Your task to perform on an android device: change the clock display to digital Image 0: 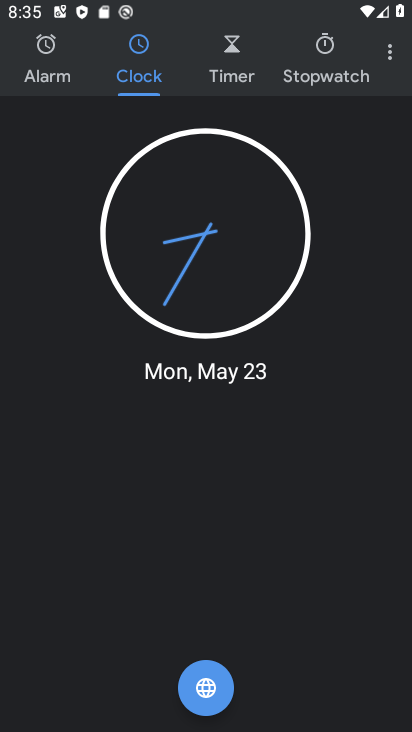
Step 0: press home button
Your task to perform on an android device: change the clock display to digital Image 1: 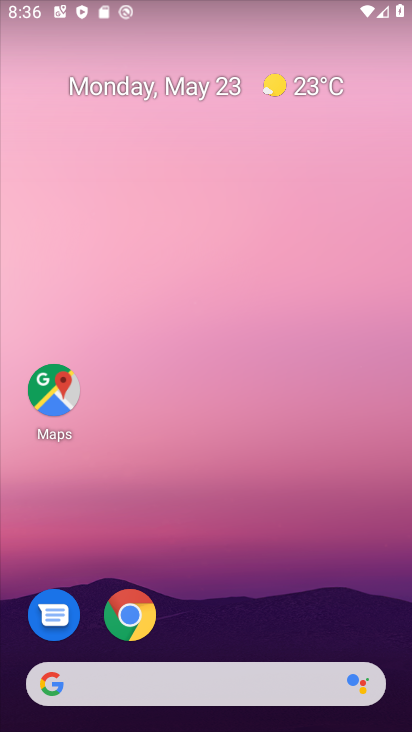
Step 1: drag from (244, 586) to (210, 198)
Your task to perform on an android device: change the clock display to digital Image 2: 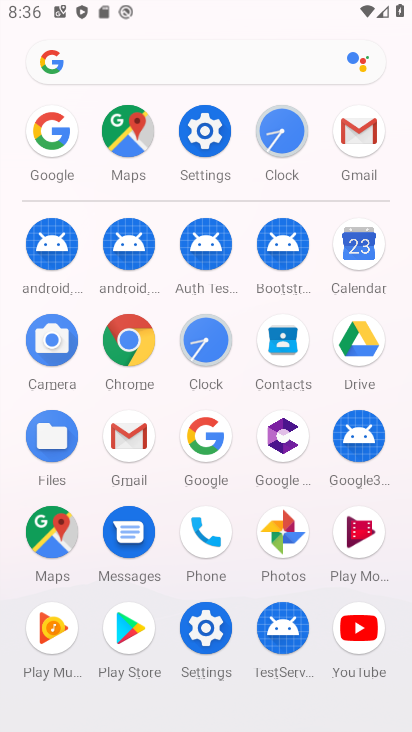
Step 2: click (207, 335)
Your task to perform on an android device: change the clock display to digital Image 3: 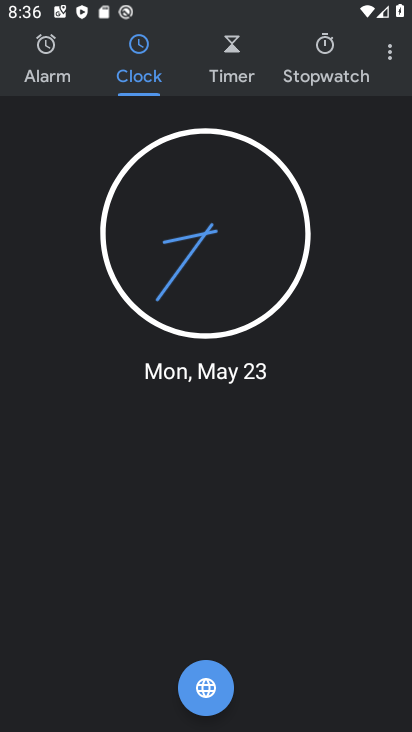
Step 3: click (391, 54)
Your task to perform on an android device: change the clock display to digital Image 4: 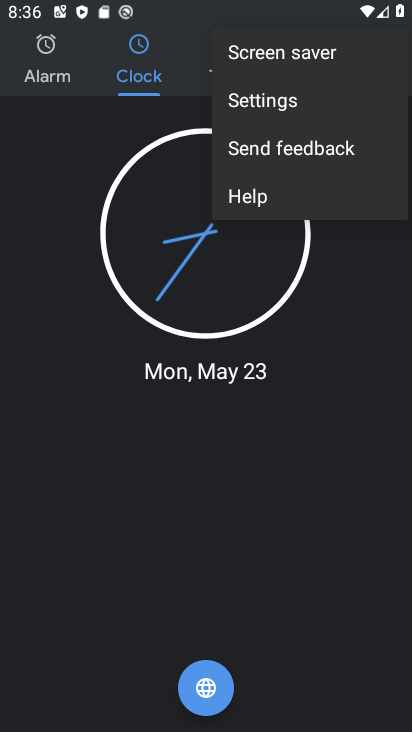
Step 4: click (289, 109)
Your task to perform on an android device: change the clock display to digital Image 5: 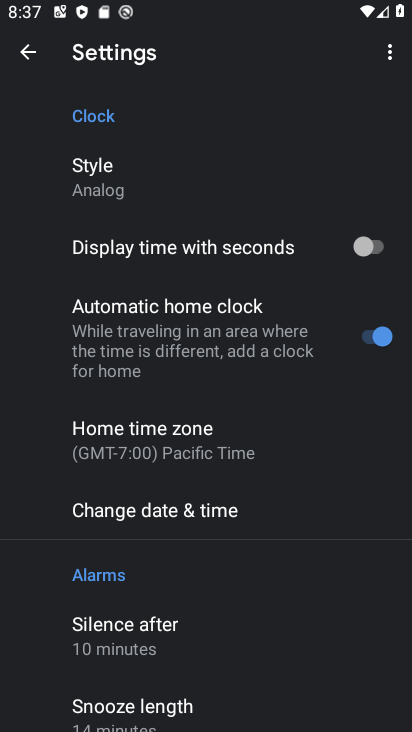
Step 5: click (86, 176)
Your task to perform on an android device: change the clock display to digital Image 6: 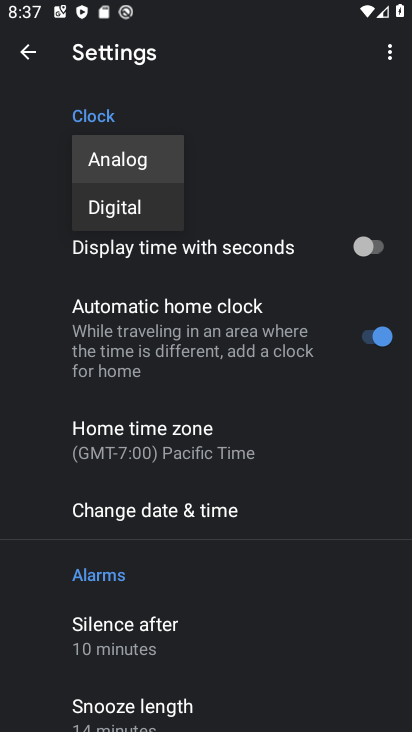
Step 6: click (117, 202)
Your task to perform on an android device: change the clock display to digital Image 7: 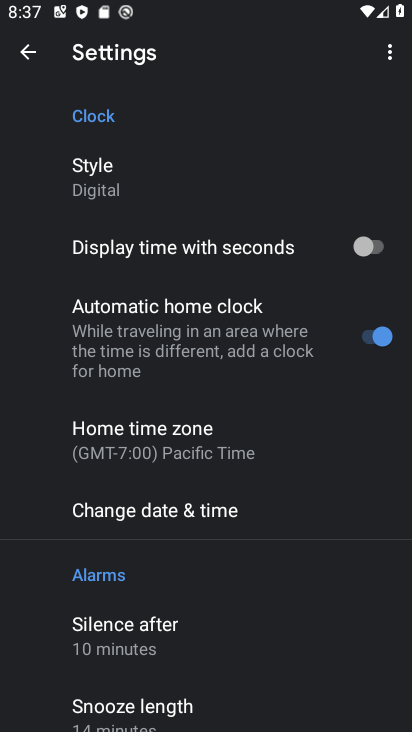
Step 7: task complete